Your task to perform on an android device: see sites visited before in the chrome app Image 0: 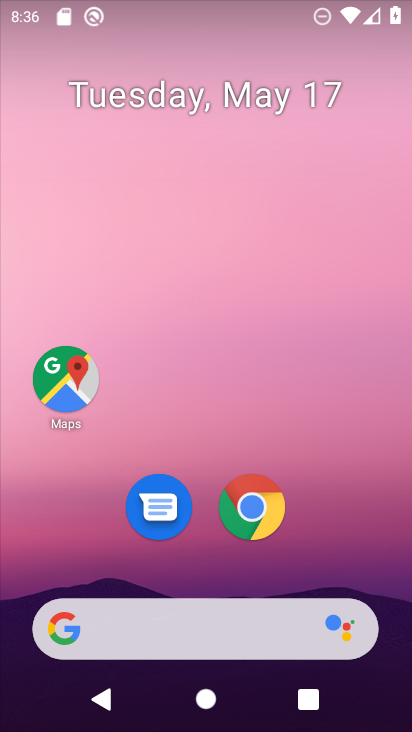
Step 0: click (247, 509)
Your task to perform on an android device: see sites visited before in the chrome app Image 1: 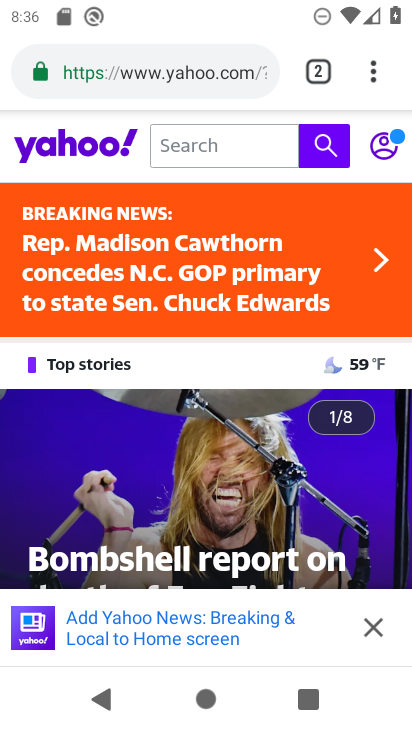
Step 1: task complete